Your task to perform on an android device: What's the weather today? Image 0: 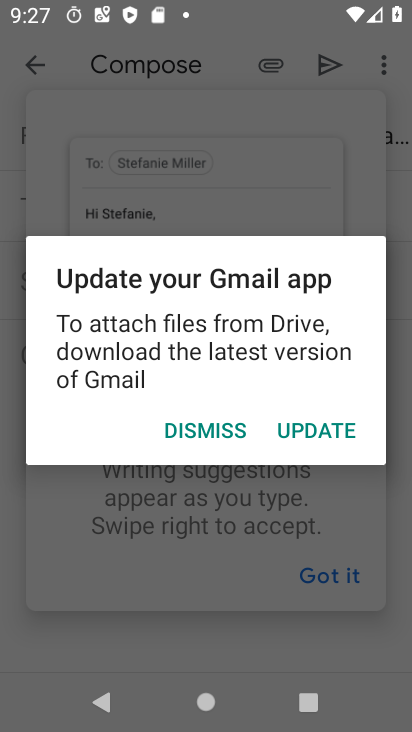
Step 0: press home button
Your task to perform on an android device: What's the weather today? Image 1: 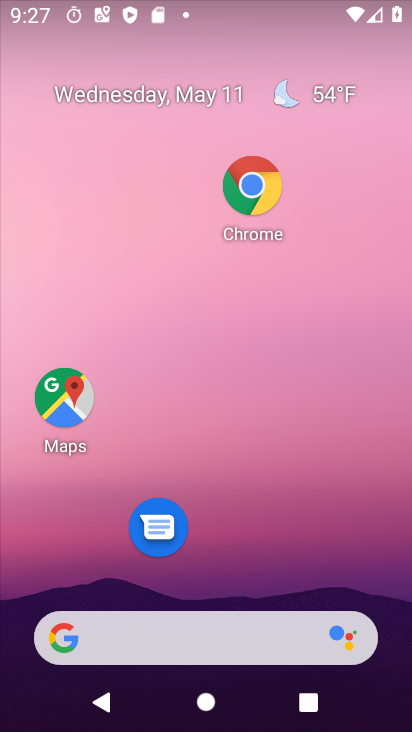
Step 1: drag from (275, 406) to (276, 34)
Your task to perform on an android device: What's the weather today? Image 2: 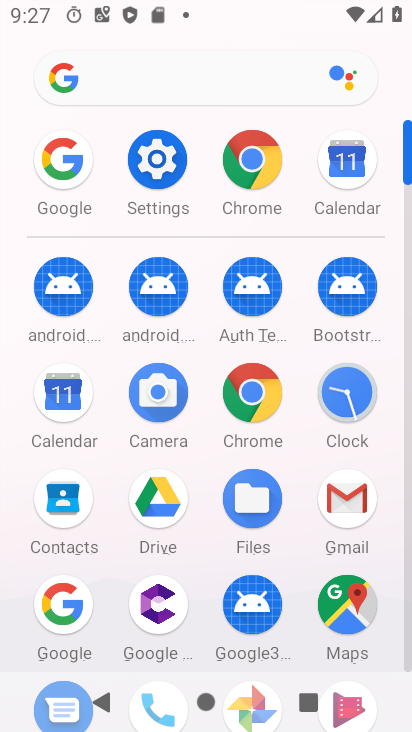
Step 2: click (63, 156)
Your task to perform on an android device: What's the weather today? Image 3: 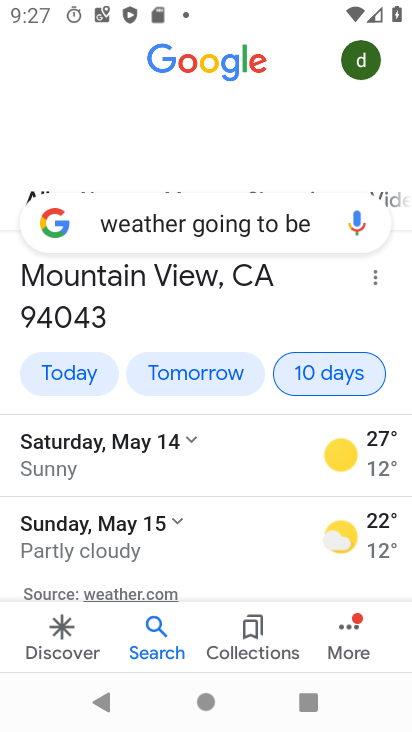
Step 3: click (305, 215)
Your task to perform on an android device: What's the weather today? Image 4: 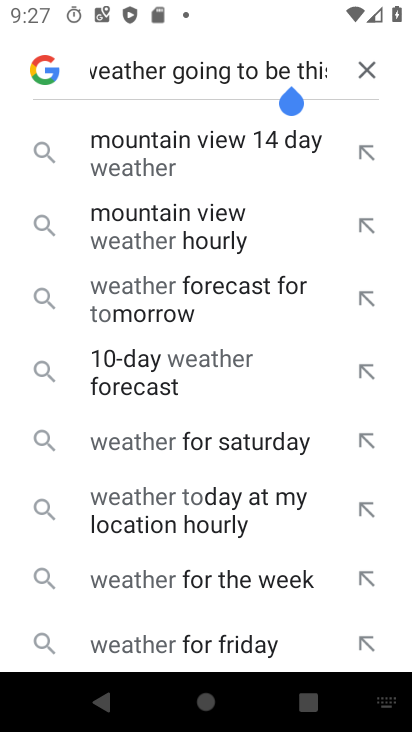
Step 4: click (360, 70)
Your task to perform on an android device: What's the weather today? Image 5: 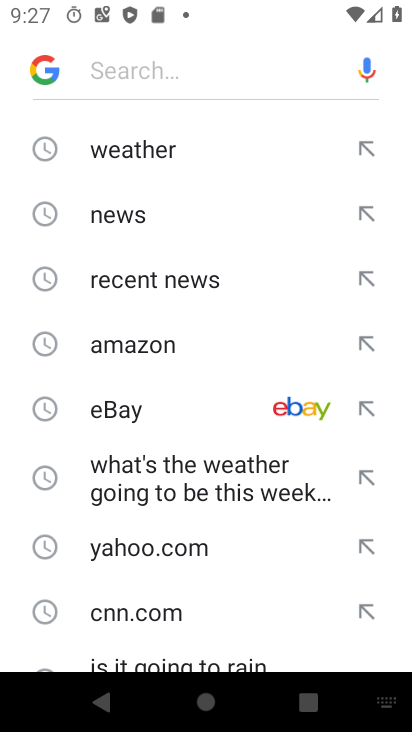
Step 5: drag from (186, 588) to (224, 155)
Your task to perform on an android device: What's the weather today? Image 6: 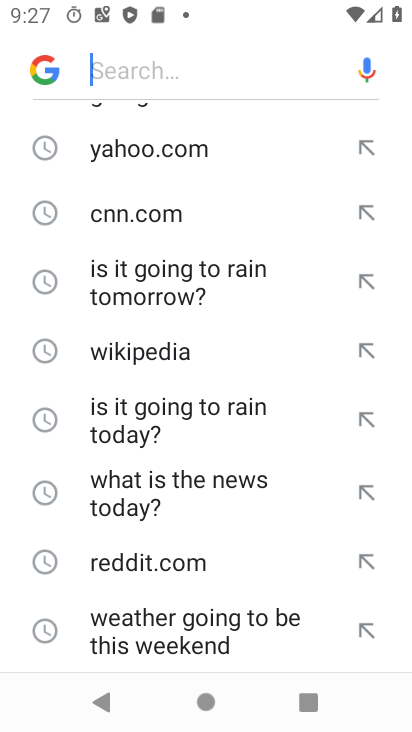
Step 6: type "weather today"
Your task to perform on an android device: What's the weather today? Image 7: 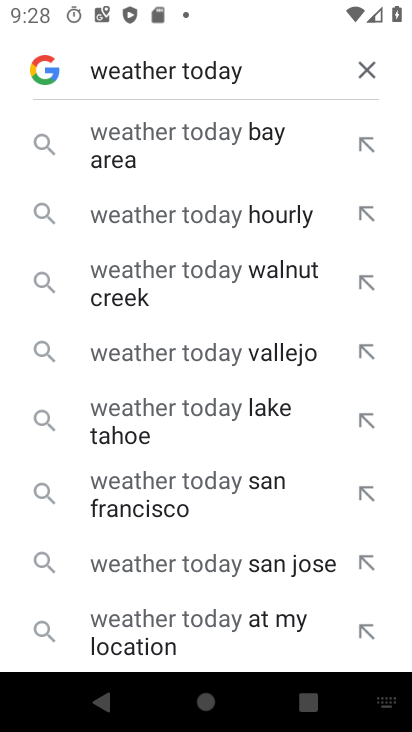
Step 7: click (360, 72)
Your task to perform on an android device: What's the weather today? Image 8: 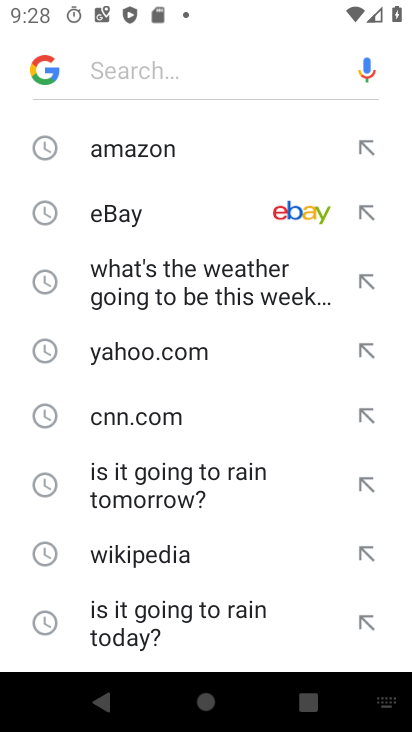
Step 8: type "whats the weather today"
Your task to perform on an android device: What's the weather today? Image 9: 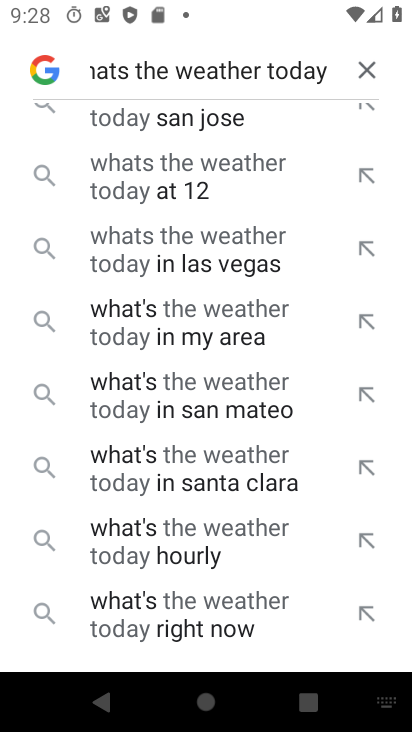
Step 9: drag from (208, 241) to (192, 586)
Your task to perform on an android device: What's the weather today? Image 10: 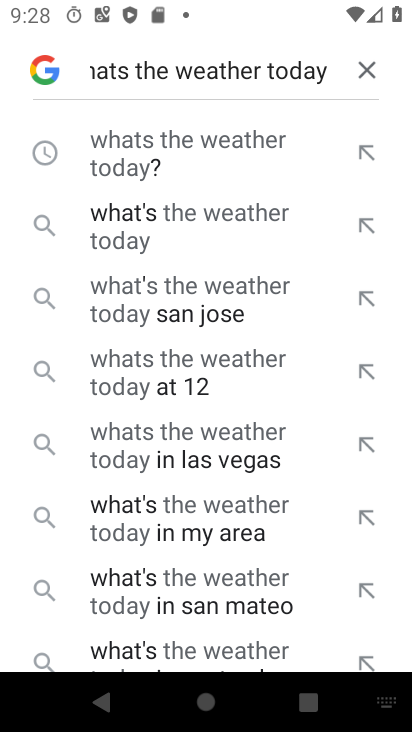
Step 10: click (170, 153)
Your task to perform on an android device: What's the weather today? Image 11: 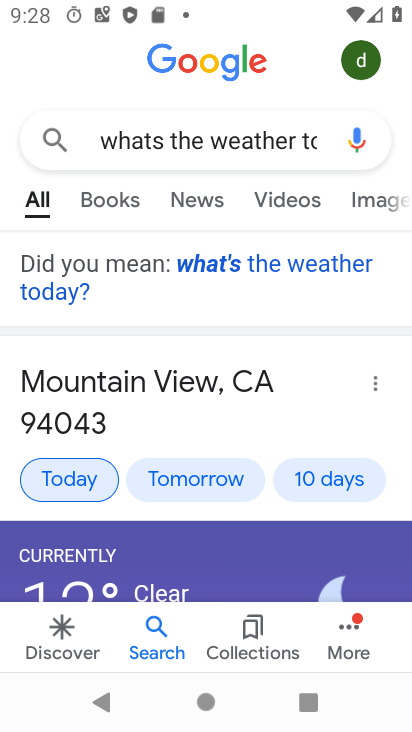
Step 11: task complete